Your task to perform on an android device: Go to sound settings Image 0: 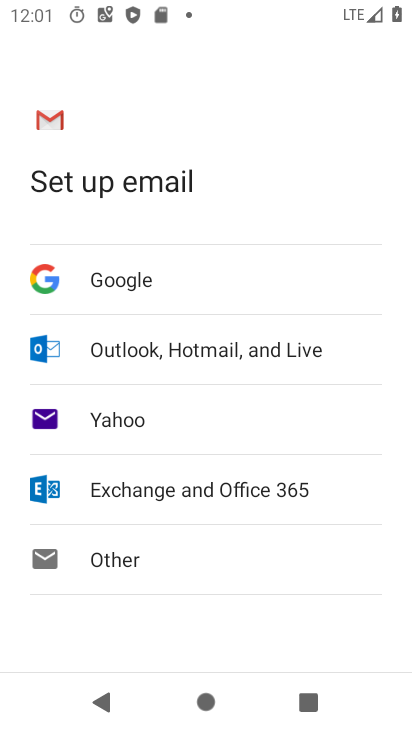
Step 0: press home button
Your task to perform on an android device: Go to sound settings Image 1: 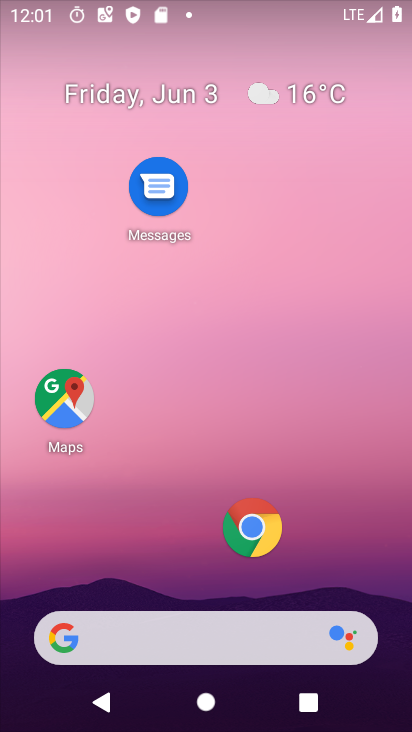
Step 1: drag from (209, 584) to (209, 108)
Your task to perform on an android device: Go to sound settings Image 2: 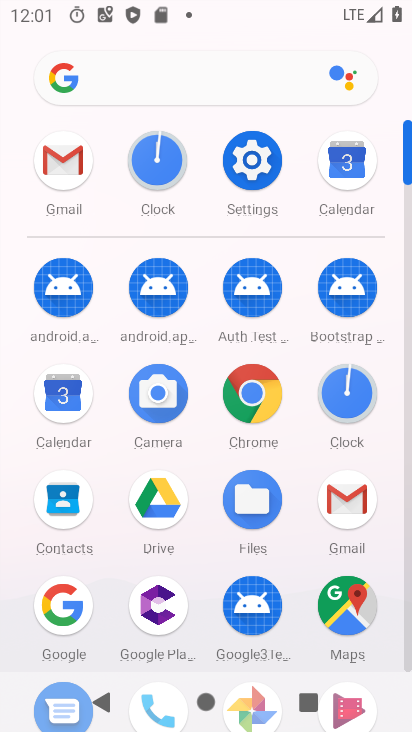
Step 2: click (247, 155)
Your task to perform on an android device: Go to sound settings Image 3: 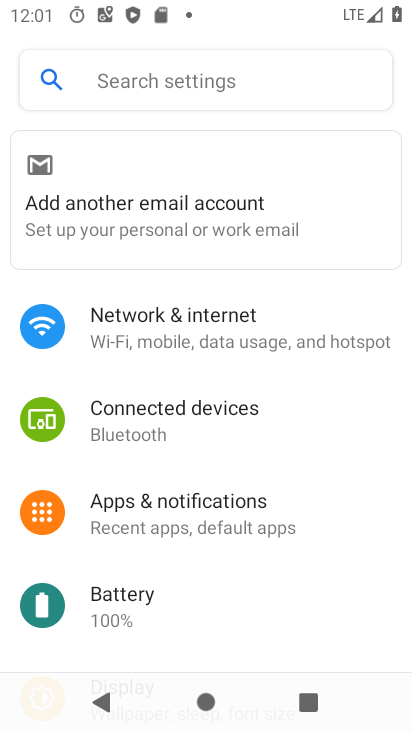
Step 3: drag from (190, 636) to (176, 166)
Your task to perform on an android device: Go to sound settings Image 4: 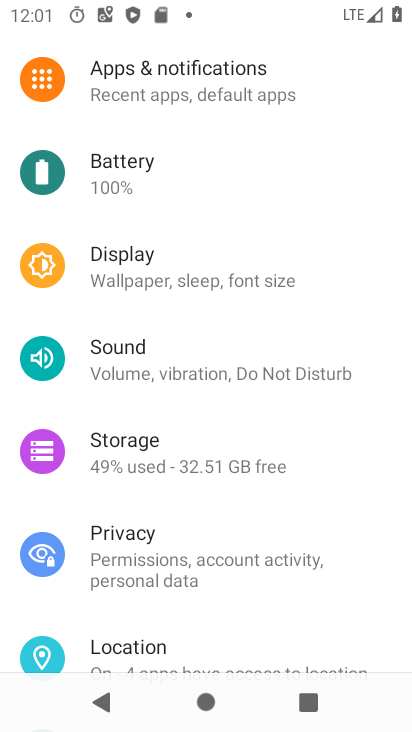
Step 4: click (171, 346)
Your task to perform on an android device: Go to sound settings Image 5: 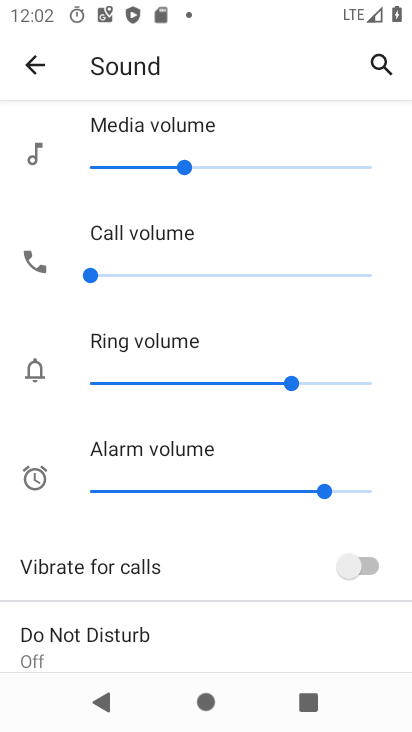
Step 5: drag from (217, 625) to (207, 160)
Your task to perform on an android device: Go to sound settings Image 6: 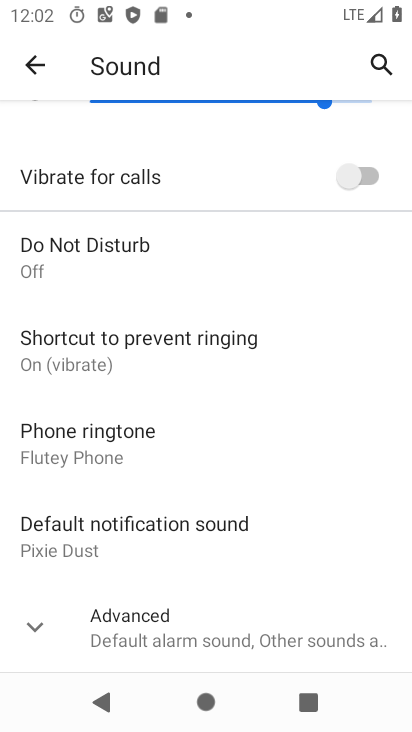
Step 6: click (33, 624)
Your task to perform on an android device: Go to sound settings Image 7: 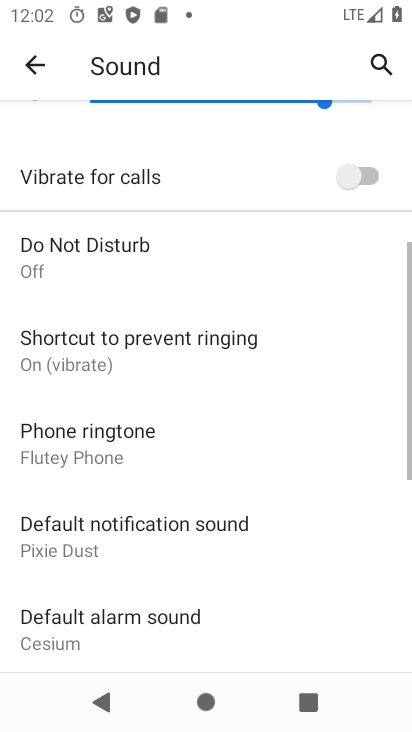
Step 7: task complete